Your task to perform on an android device: toggle wifi Image 0: 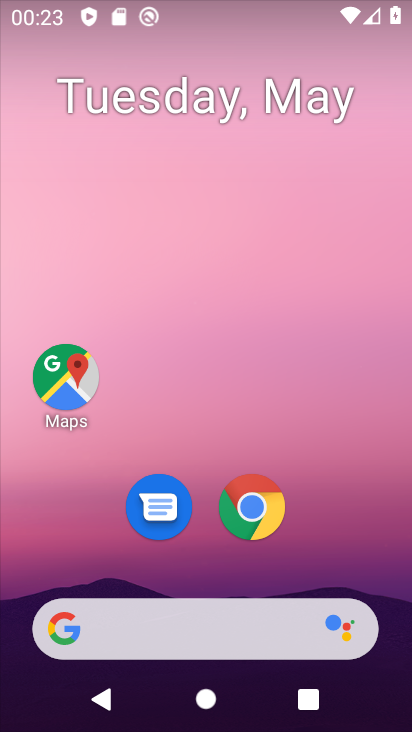
Step 0: press home button
Your task to perform on an android device: toggle wifi Image 1: 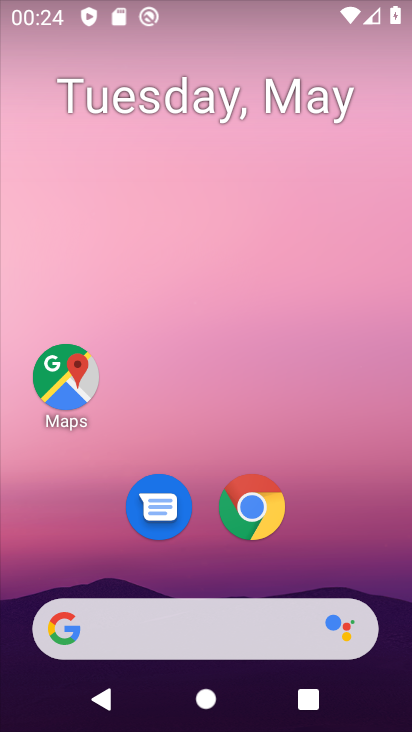
Step 1: drag from (232, 576) to (305, 92)
Your task to perform on an android device: toggle wifi Image 2: 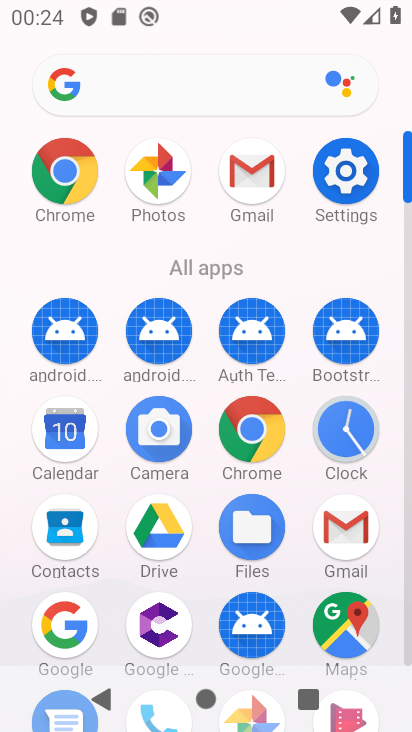
Step 2: click (366, 180)
Your task to perform on an android device: toggle wifi Image 3: 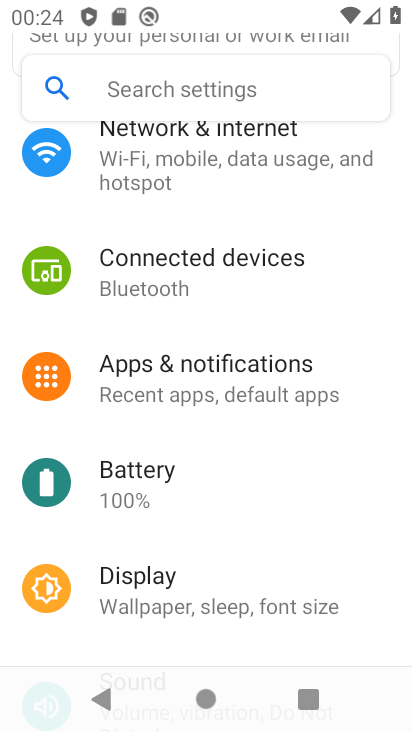
Step 3: drag from (180, 186) to (136, 586)
Your task to perform on an android device: toggle wifi Image 4: 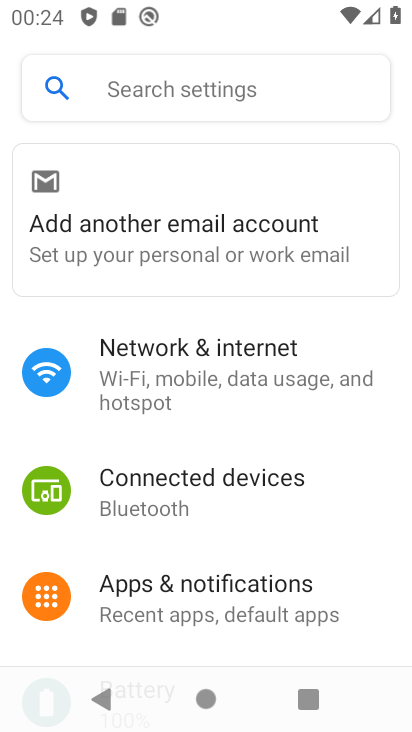
Step 4: click (190, 363)
Your task to perform on an android device: toggle wifi Image 5: 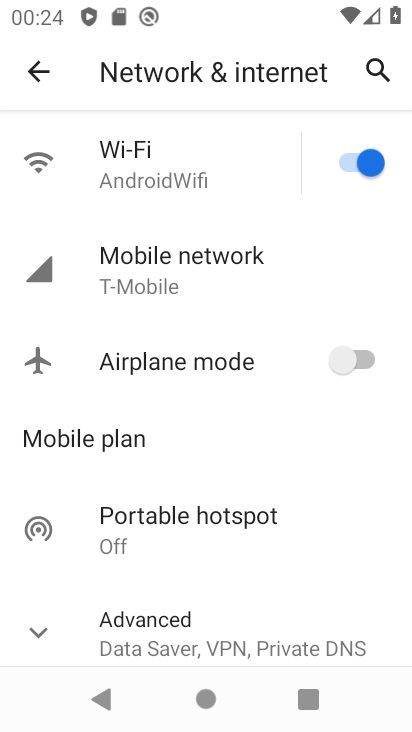
Step 5: click (352, 160)
Your task to perform on an android device: toggle wifi Image 6: 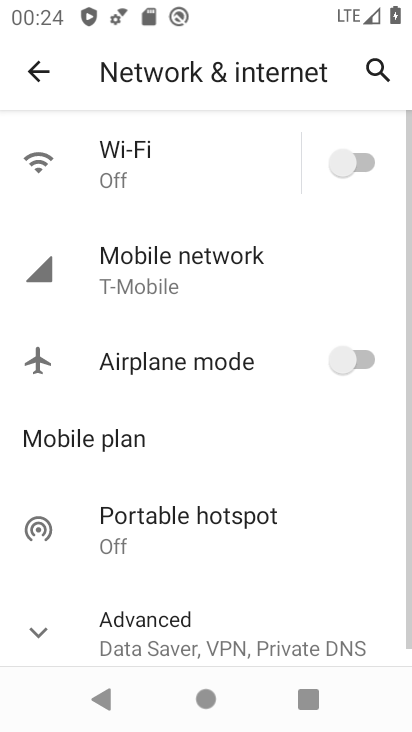
Step 6: task complete